Your task to perform on an android device: Show the shopping cart on amazon. Image 0: 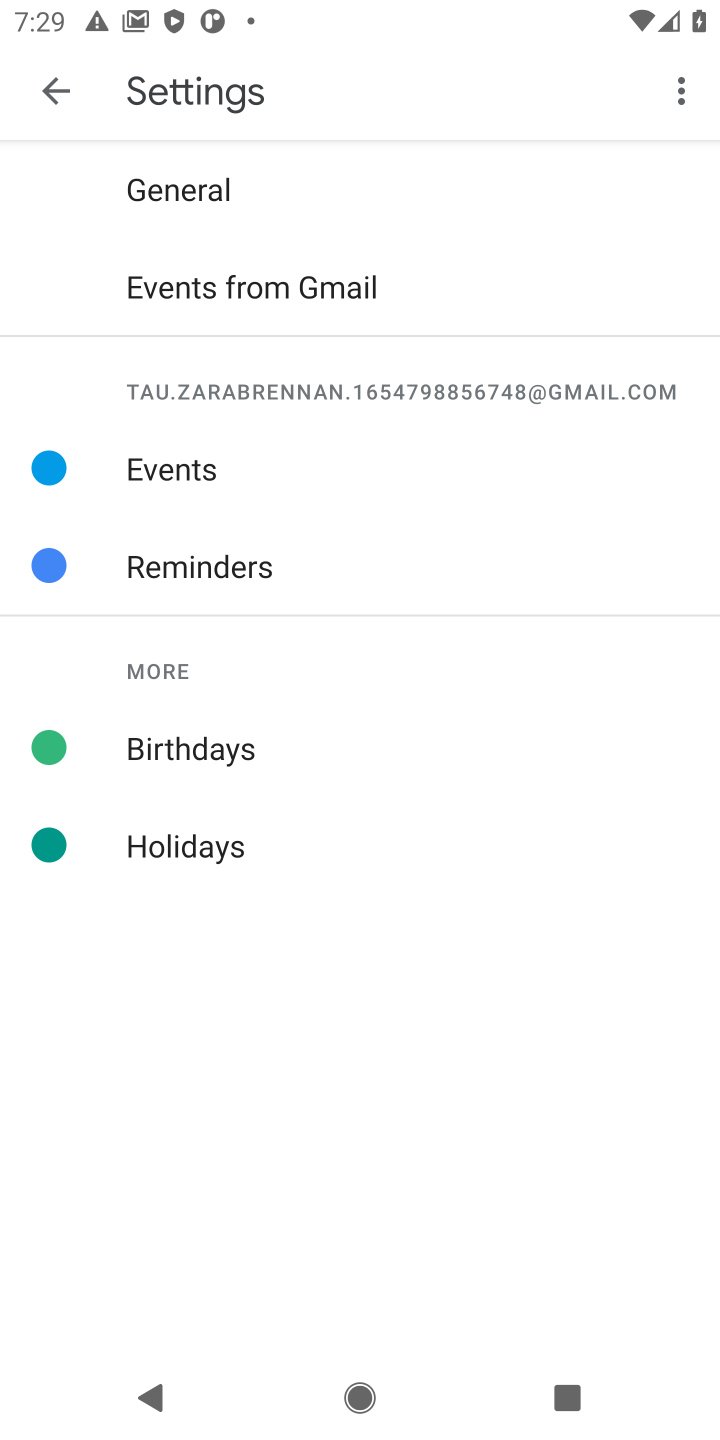
Step 0: press home button
Your task to perform on an android device: Show the shopping cart on amazon. Image 1: 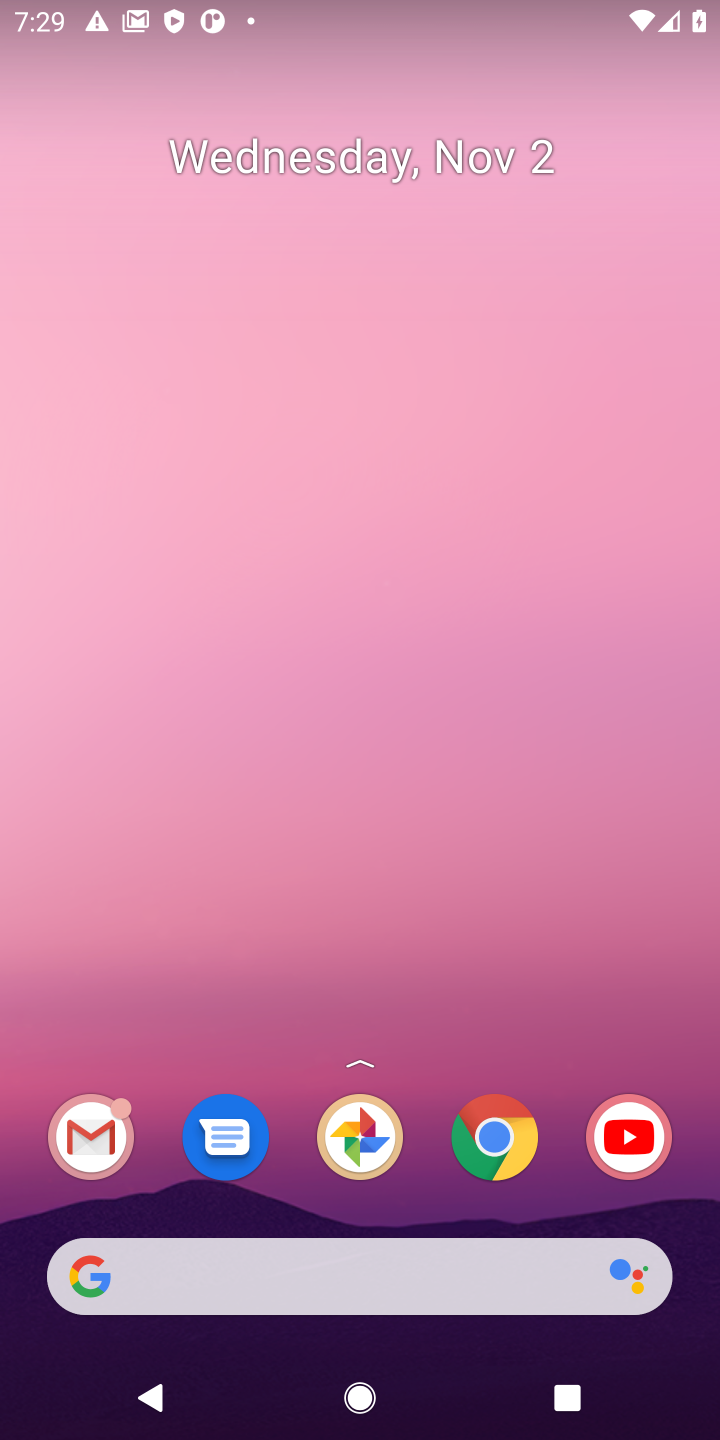
Step 1: click (493, 1141)
Your task to perform on an android device: Show the shopping cart on amazon. Image 2: 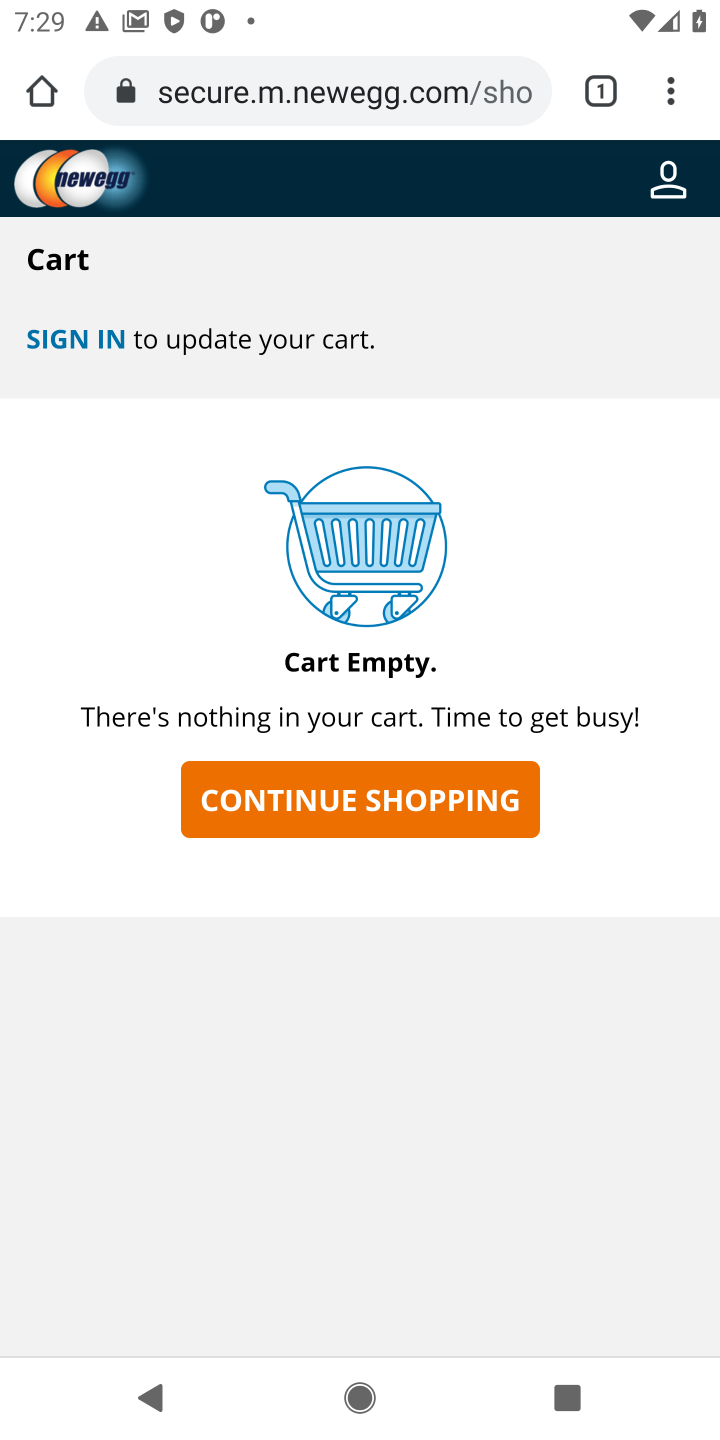
Step 2: click (420, 61)
Your task to perform on an android device: Show the shopping cart on amazon. Image 3: 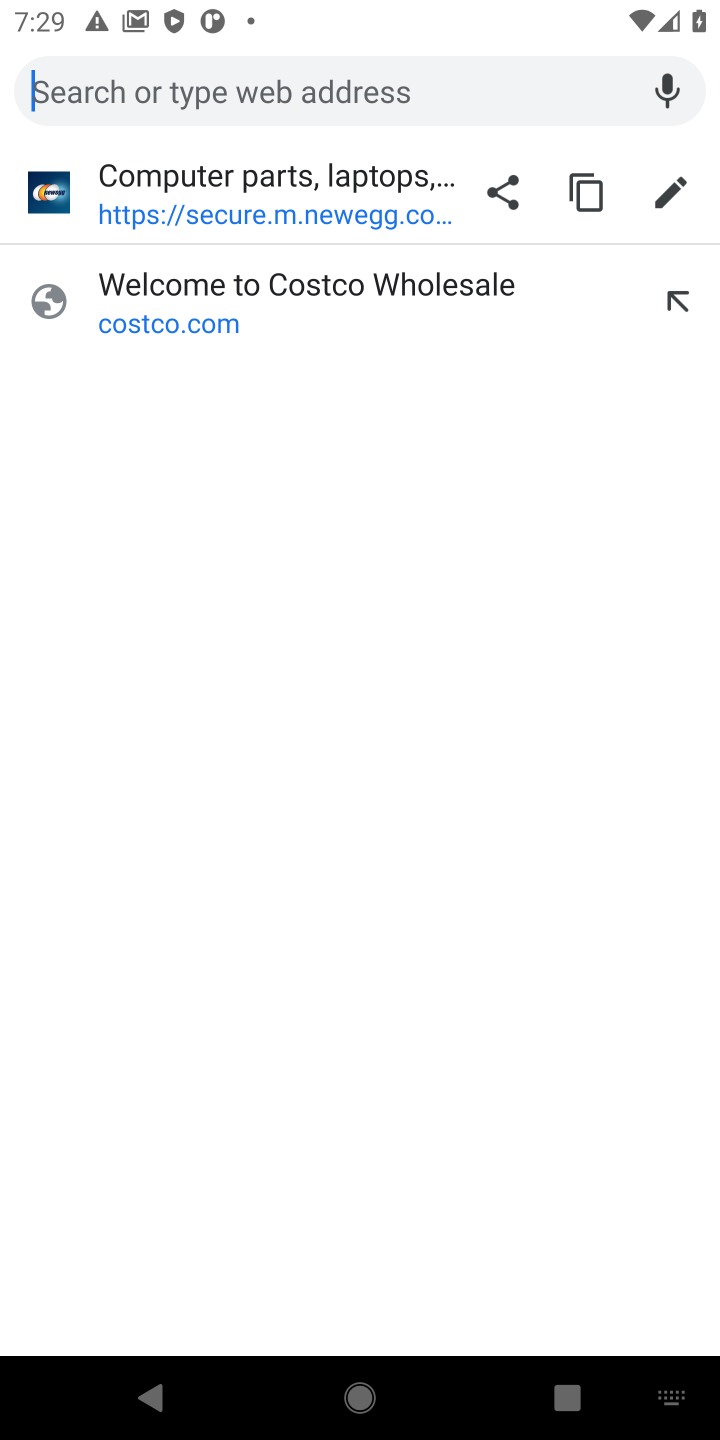
Step 3: type "amazon"
Your task to perform on an android device: Show the shopping cart on amazon. Image 4: 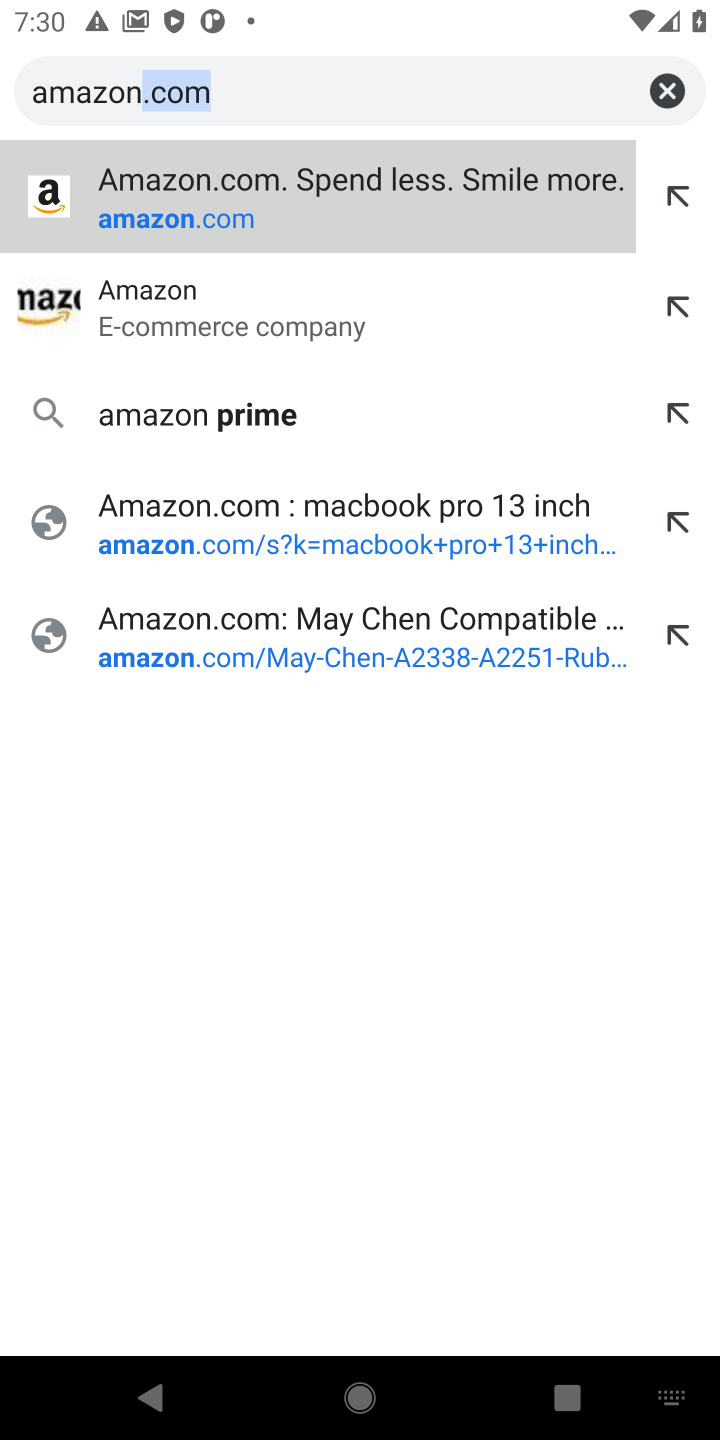
Step 4: click (150, 186)
Your task to perform on an android device: Show the shopping cart on amazon. Image 5: 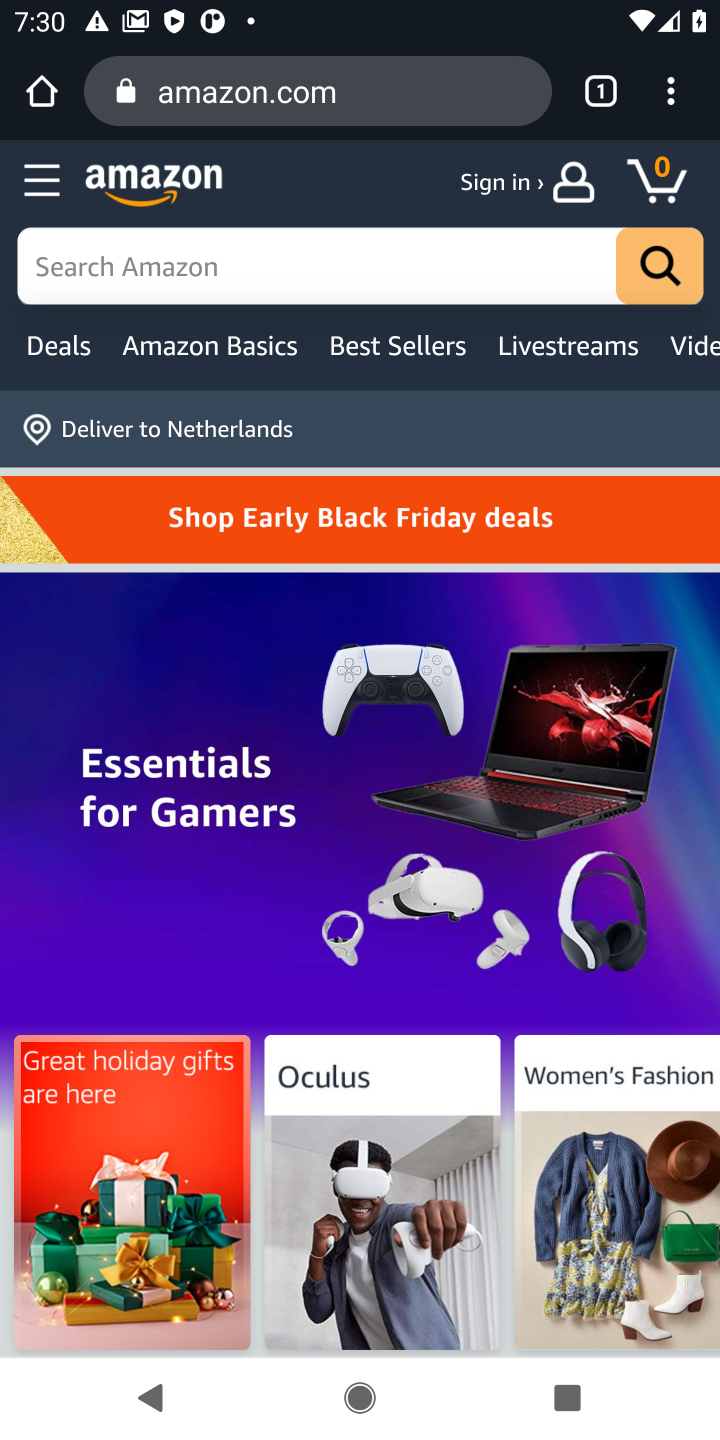
Step 5: click (650, 180)
Your task to perform on an android device: Show the shopping cart on amazon. Image 6: 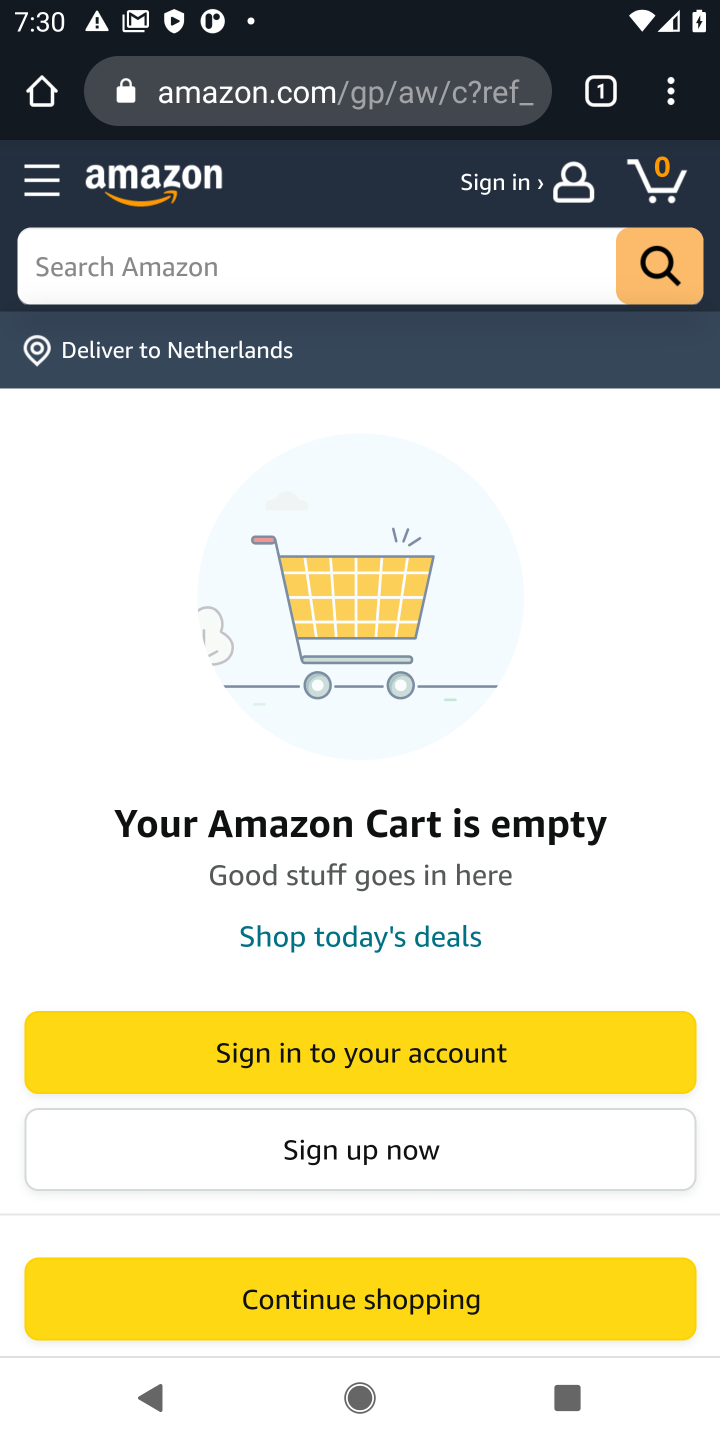
Step 6: task complete